Your task to perform on an android device: What is the news today? Image 0: 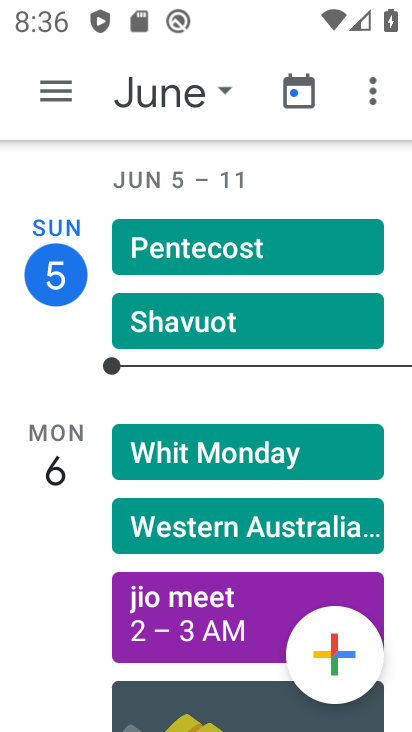
Step 0: press home button
Your task to perform on an android device: What is the news today? Image 1: 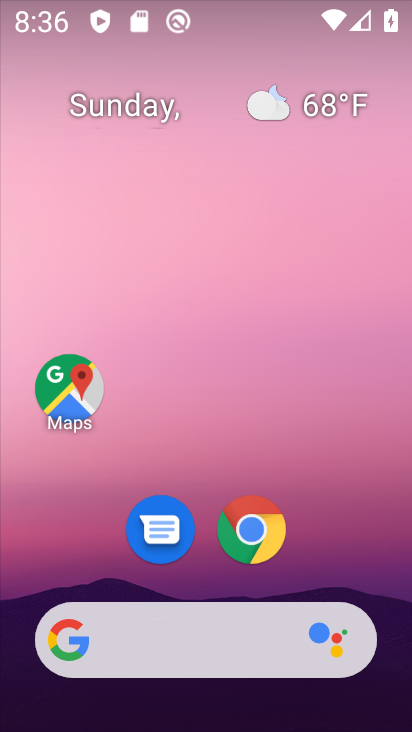
Step 1: task complete